Your task to perform on an android device: open app "Viber Messenger" Image 0: 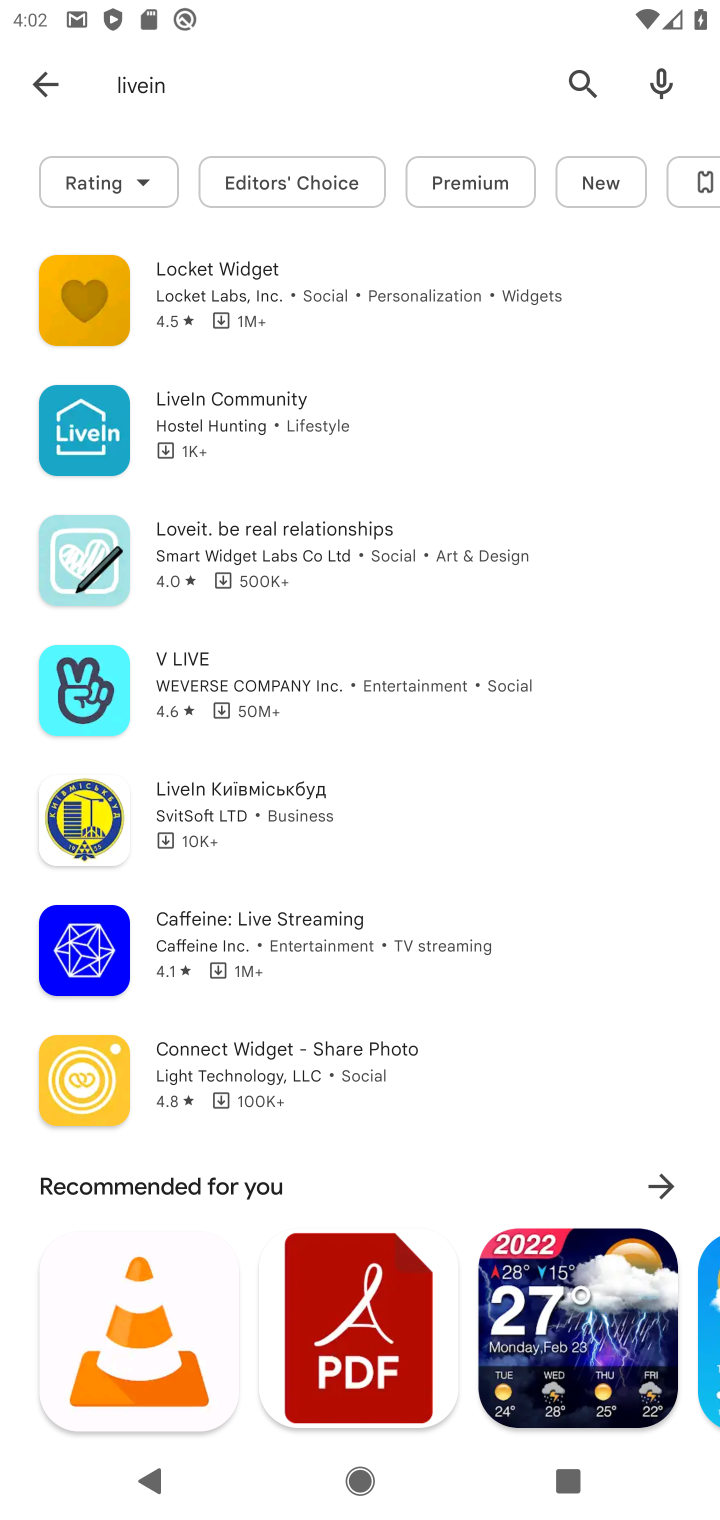
Step 0: click (196, 73)
Your task to perform on an android device: open app "Viber Messenger" Image 1: 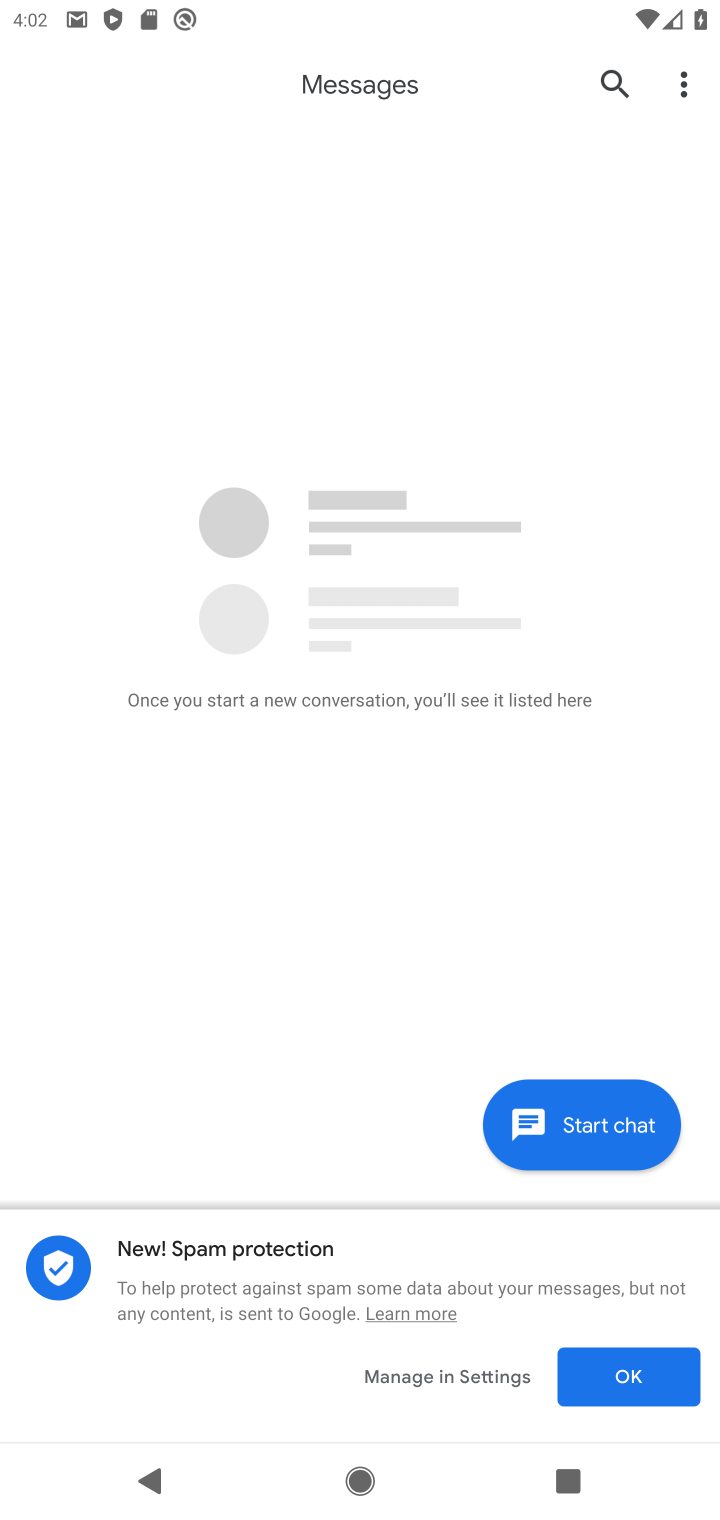
Step 1: press home button
Your task to perform on an android device: open app "Viber Messenger" Image 2: 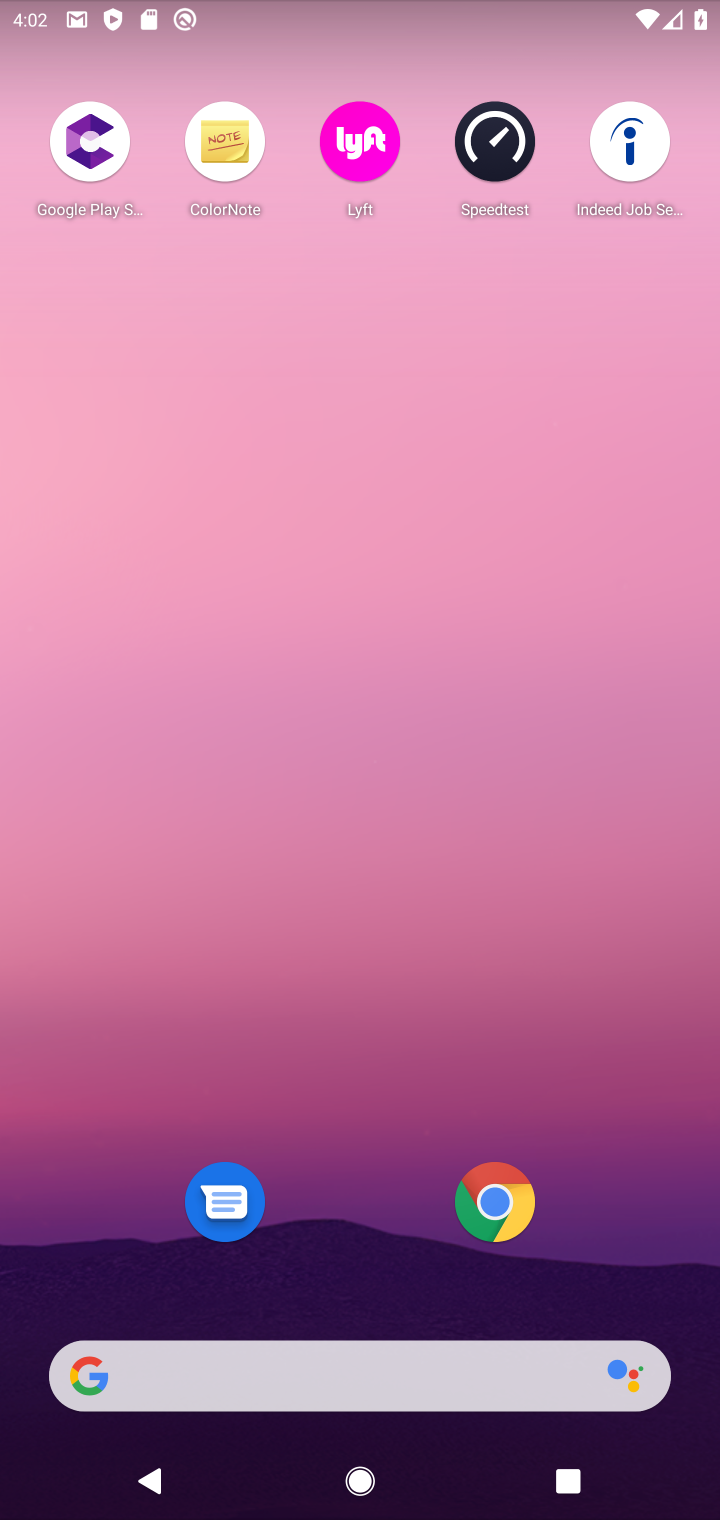
Step 2: drag from (346, 943) to (454, 23)
Your task to perform on an android device: open app "Viber Messenger" Image 3: 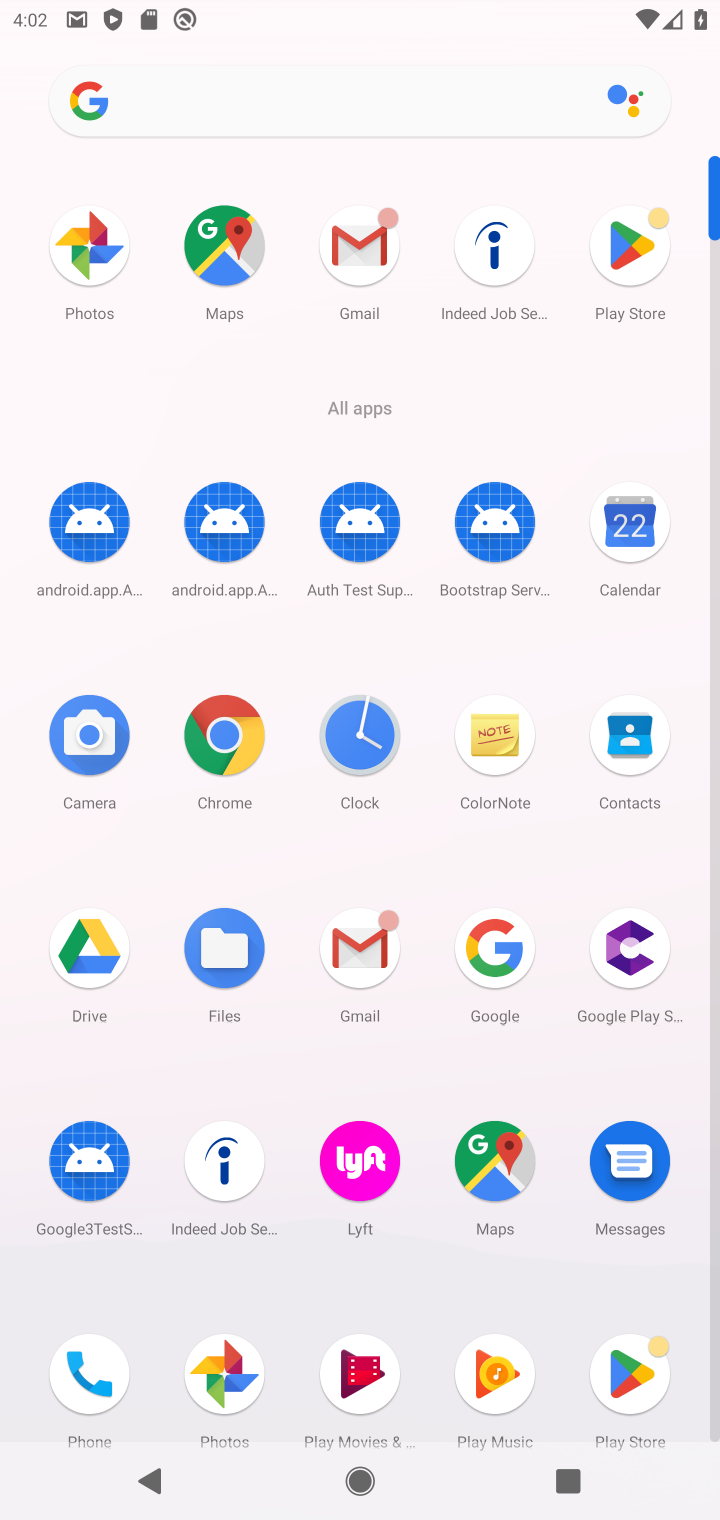
Step 3: click (634, 259)
Your task to perform on an android device: open app "Viber Messenger" Image 4: 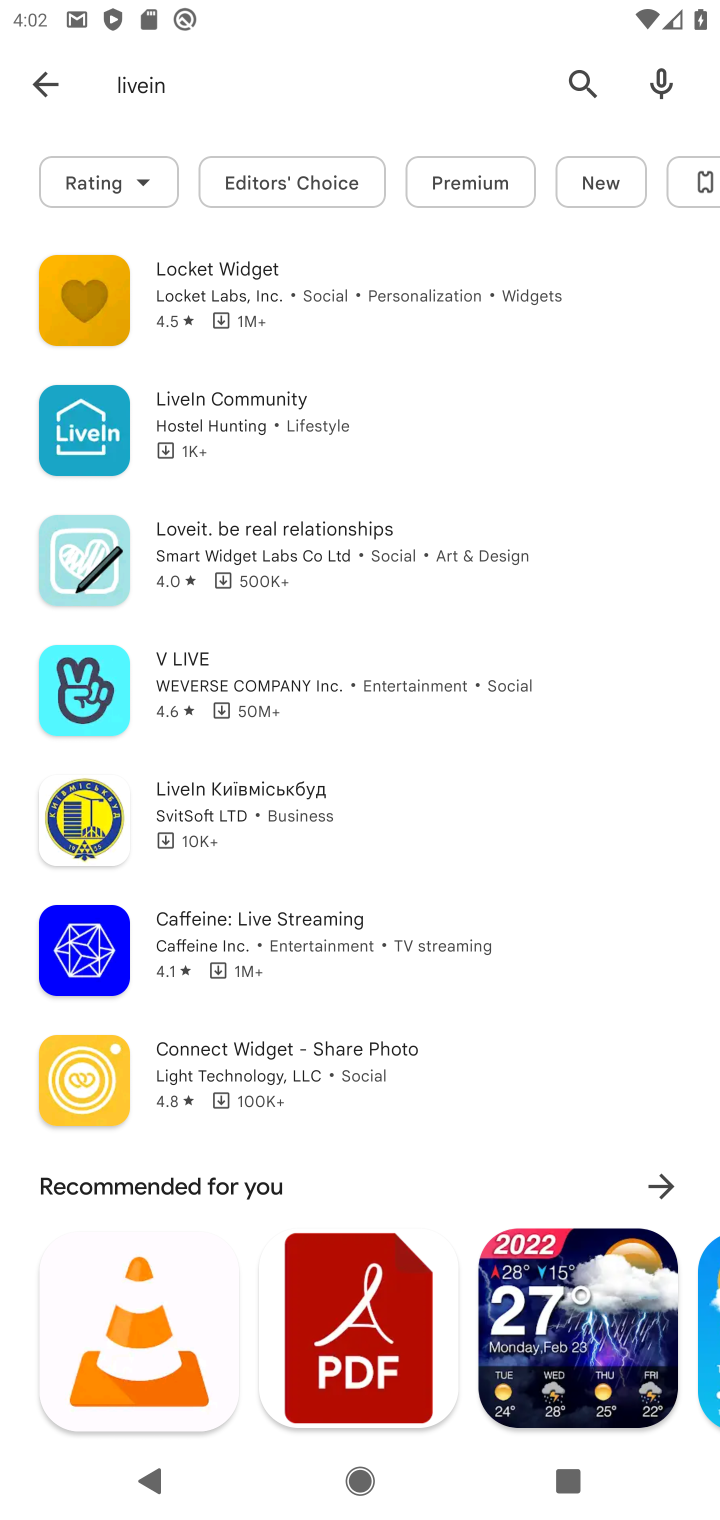
Step 4: click (253, 84)
Your task to perform on an android device: open app "Viber Messenger" Image 5: 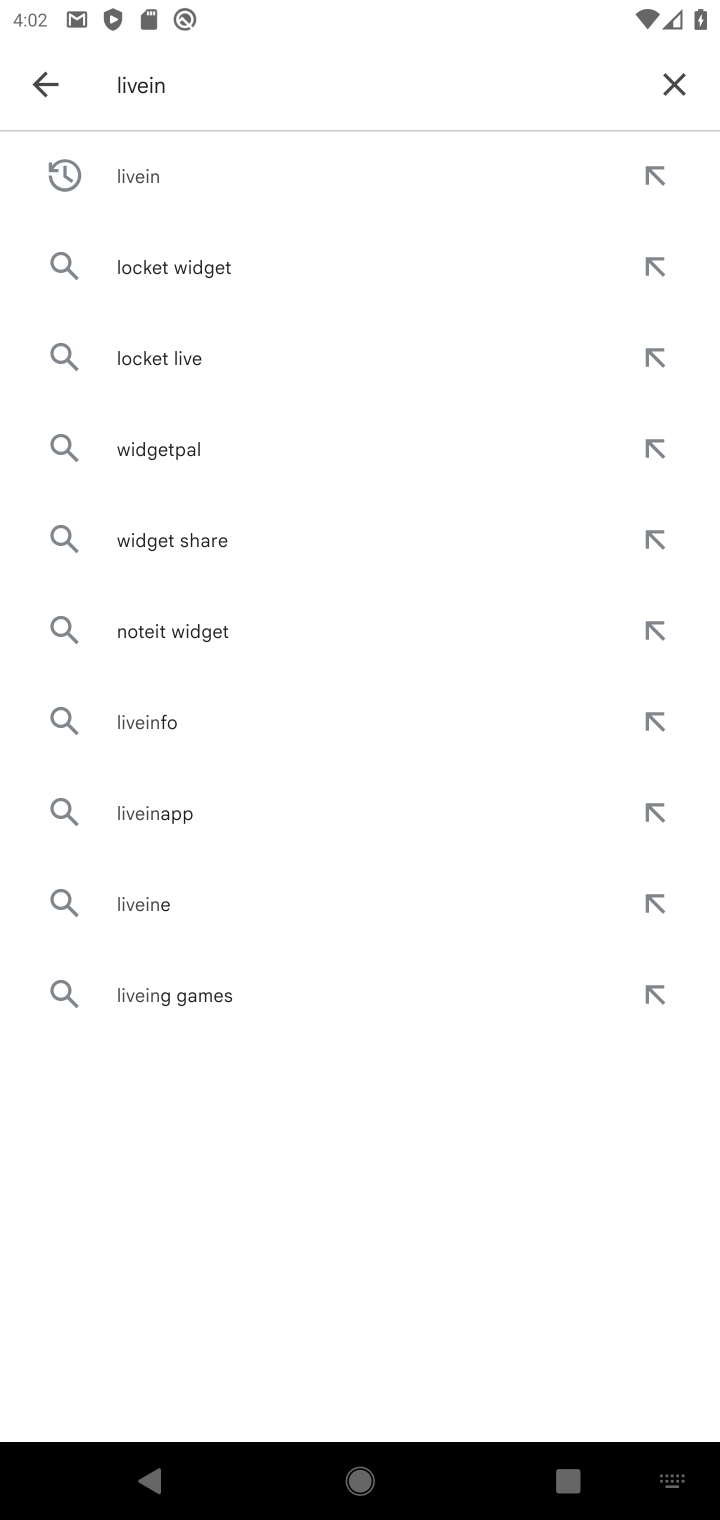
Step 5: click (694, 74)
Your task to perform on an android device: open app "Viber Messenger" Image 6: 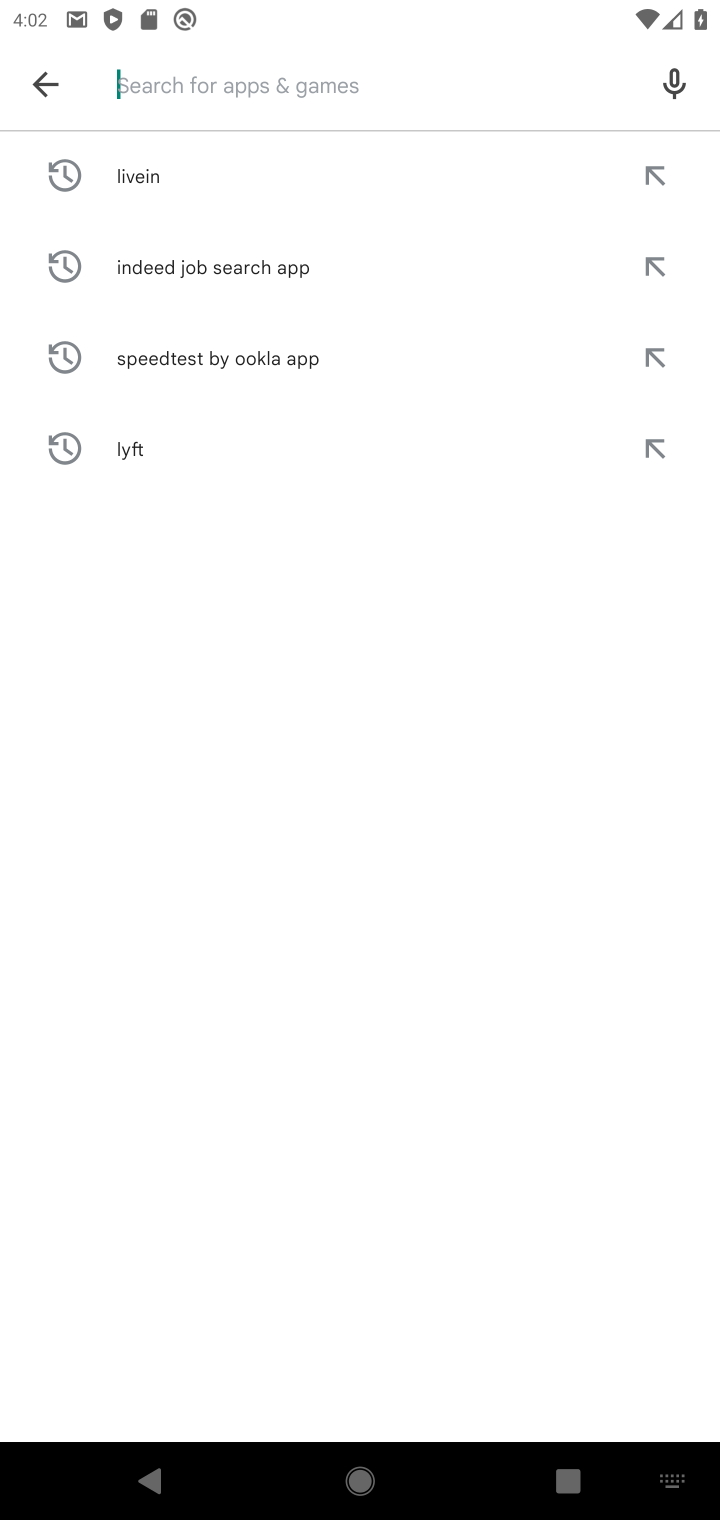
Step 6: type "Viber Messenger"
Your task to perform on an android device: open app "Viber Messenger" Image 7: 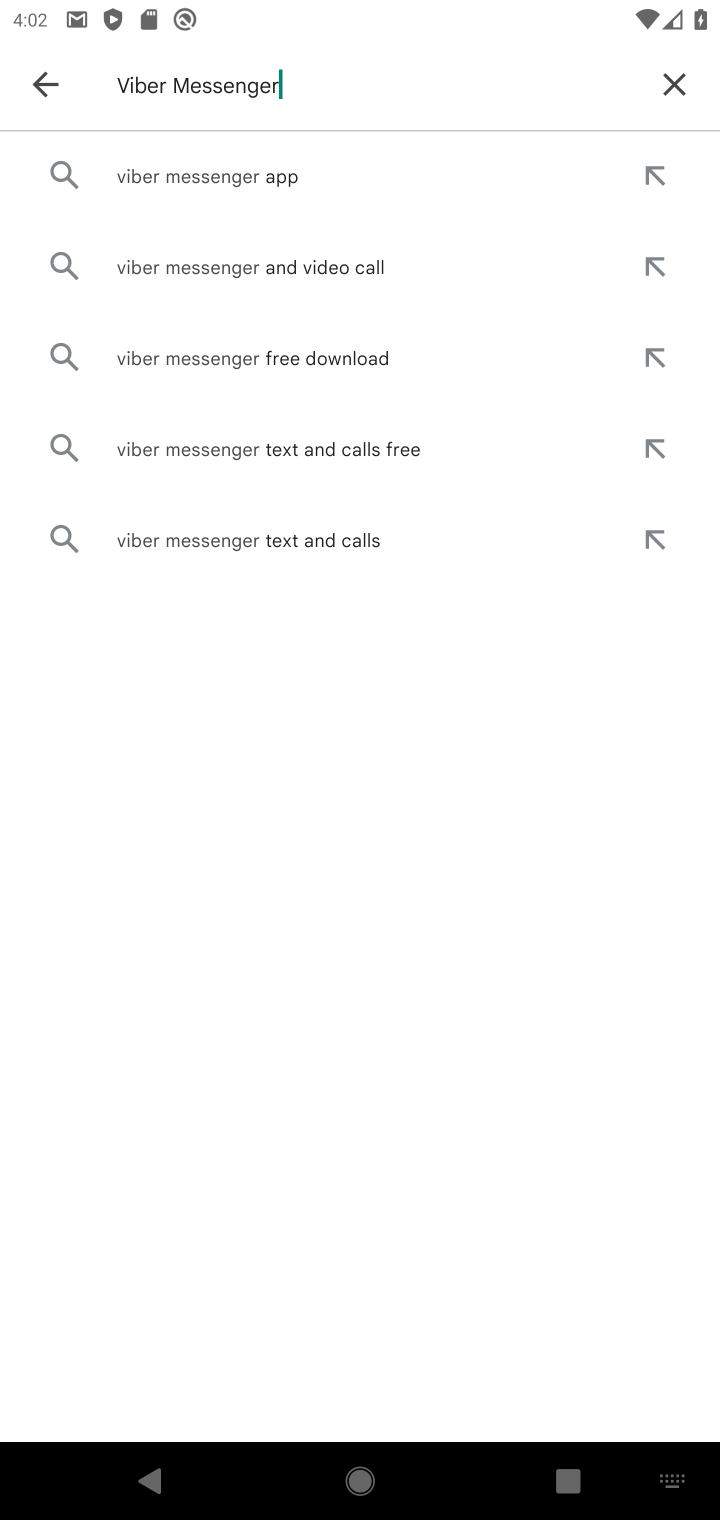
Step 7: click (251, 169)
Your task to perform on an android device: open app "Viber Messenger" Image 8: 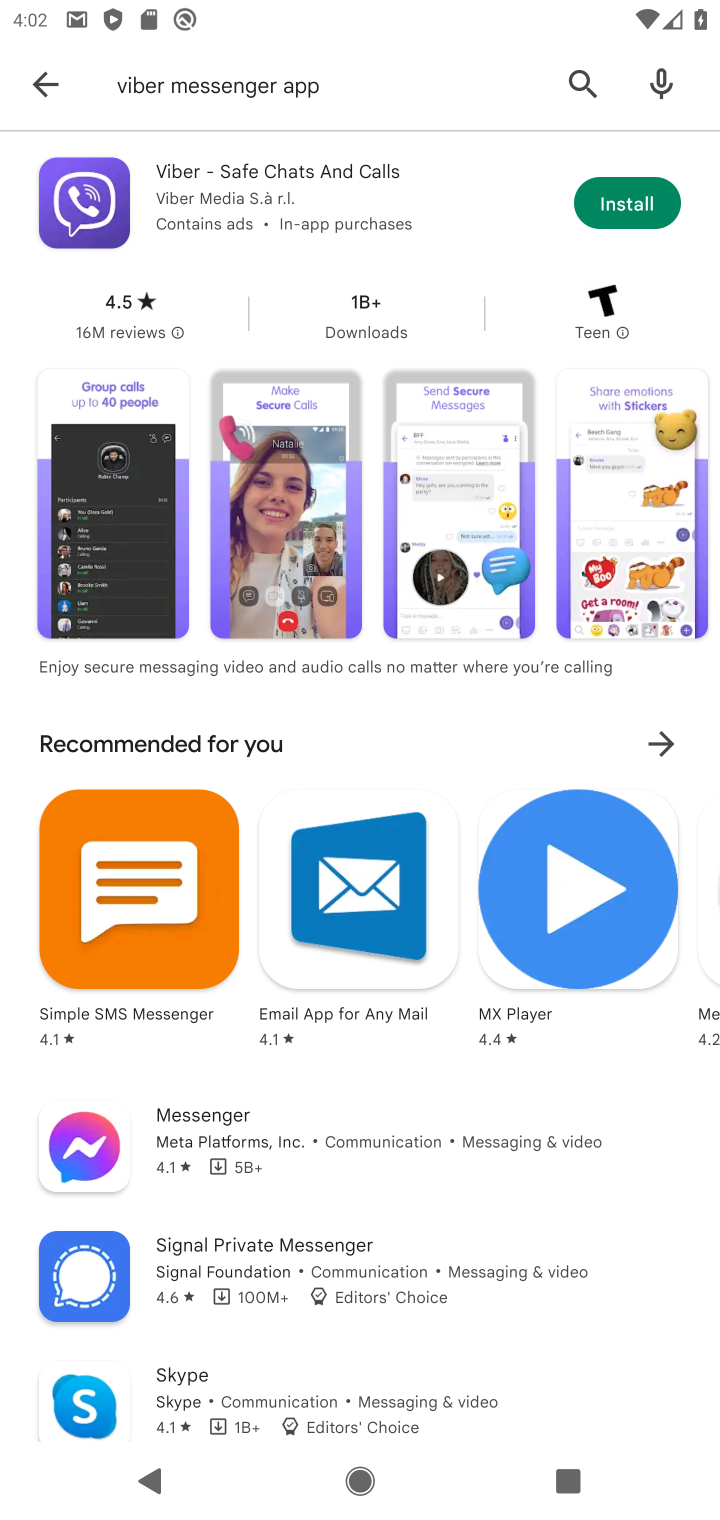
Step 8: task complete